Your task to perform on an android device: toggle location history Image 0: 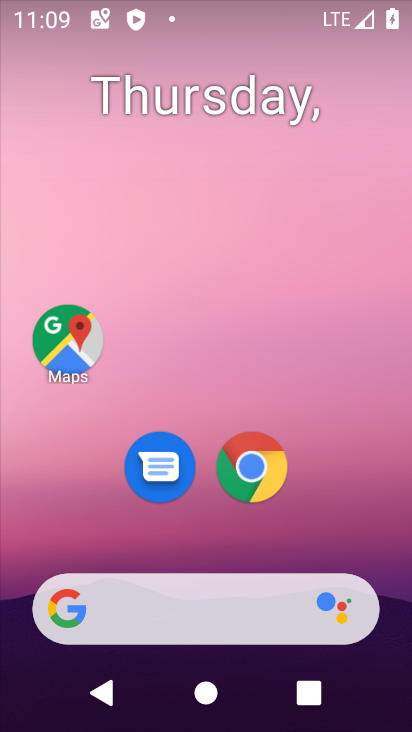
Step 0: drag from (215, 535) to (285, 33)
Your task to perform on an android device: toggle location history Image 1: 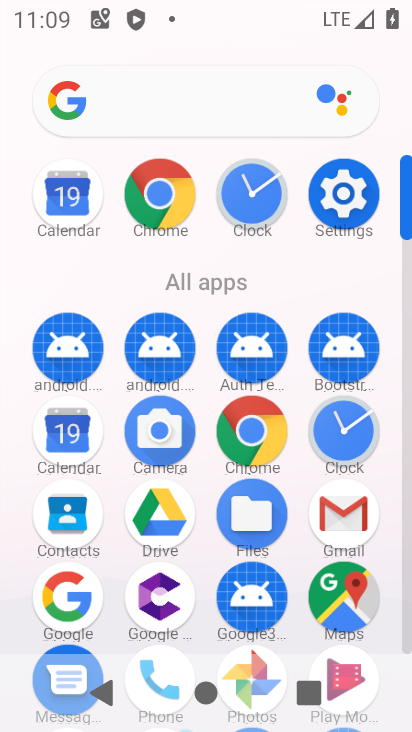
Step 1: click (332, 194)
Your task to perform on an android device: toggle location history Image 2: 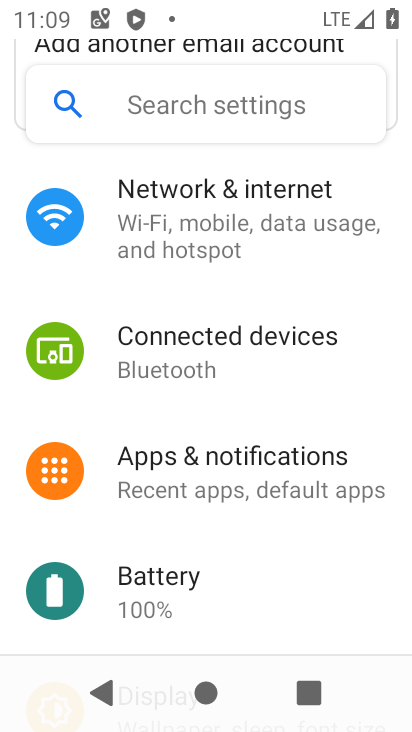
Step 2: drag from (193, 579) to (242, 217)
Your task to perform on an android device: toggle location history Image 3: 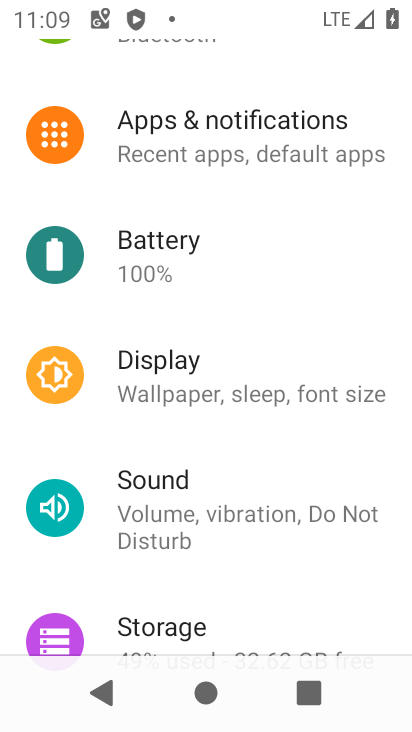
Step 3: drag from (214, 594) to (294, 86)
Your task to perform on an android device: toggle location history Image 4: 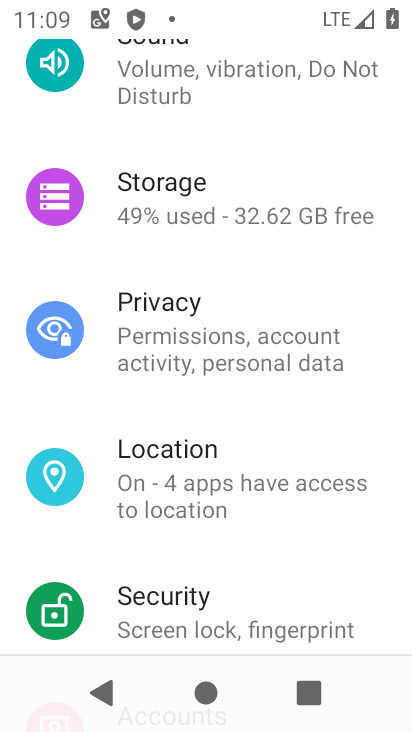
Step 4: click (201, 489)
Your task to perform on an android device: toggle location history Image 5: 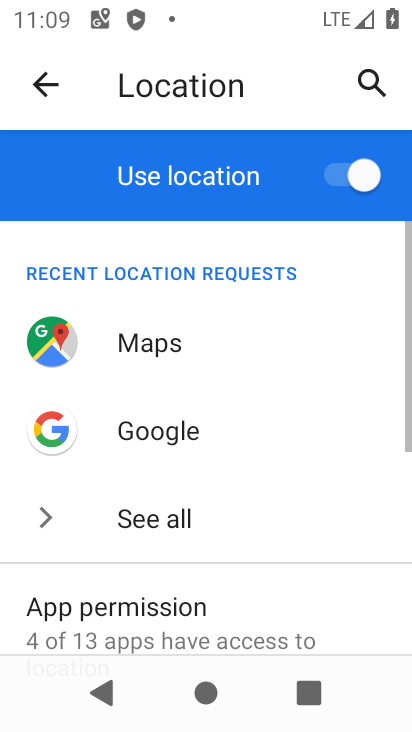
Step 5: drag from (182, 593) to (314, 78)
Your task to perform on an android device: toggle location history Image 6: 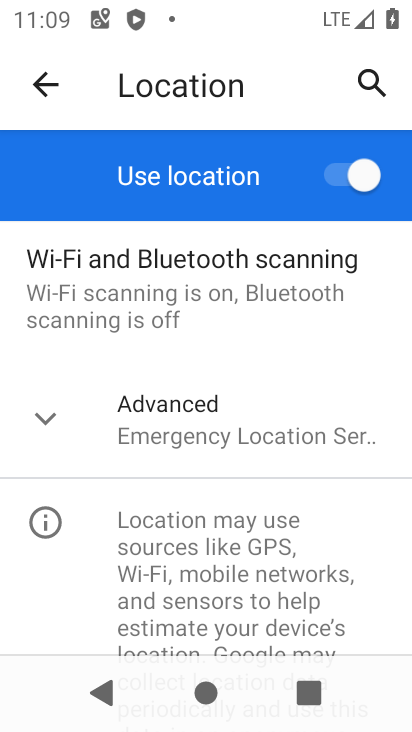
Step 6: click (206, 461)
Your task to perform on an android device: toggle location history Image 7: 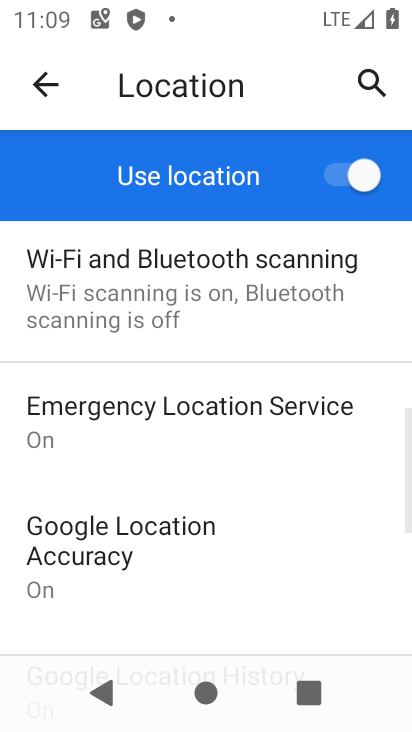
Step 7: drag from (189, 588) to (300, 158)
Your task to perform on an android device: toggle location history Image 8: 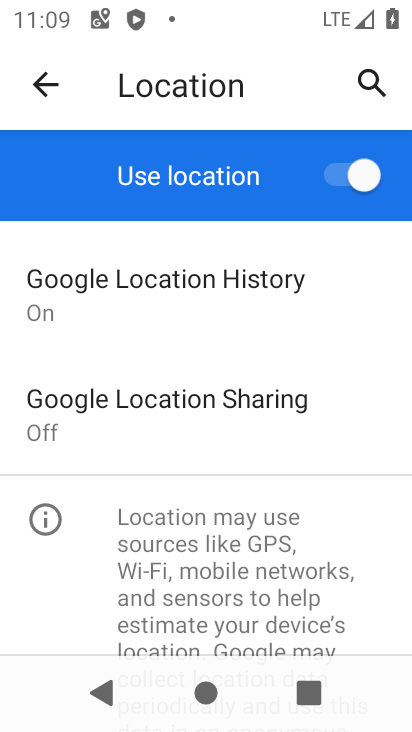
Step 8: click (163, 288)
Your task to perform on an android device: toggle location history Image 9: 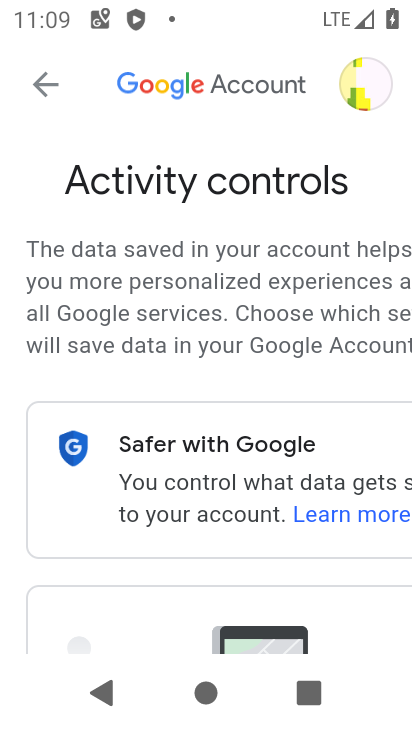
Step 9: drag from (195, 616) to (250, 127)
Your task to perform on an android device: toggle location history Image 10: 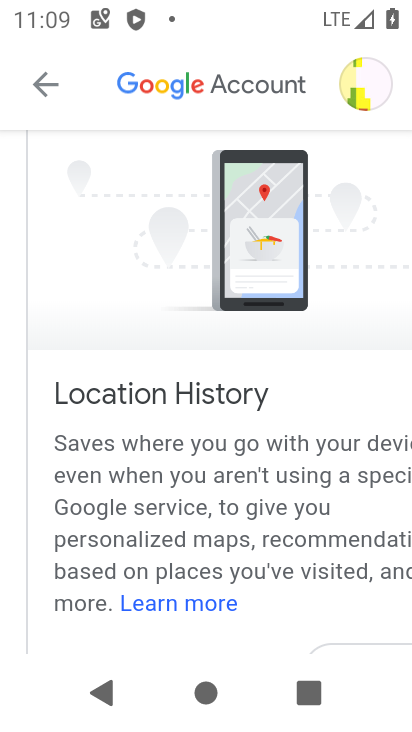
Step 10: drag from (227, 551) to (226, 100)
Your task to perform on an android device: toggle location history Image 11: 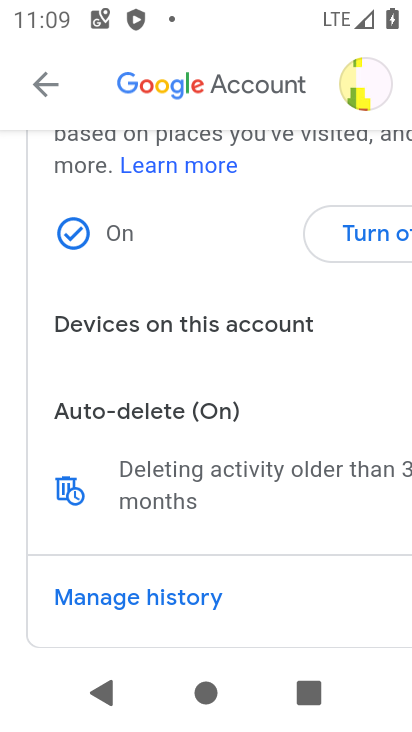
Step 11: click (338, 240)
Your task to perform on an android device: toggle location history Image 12: 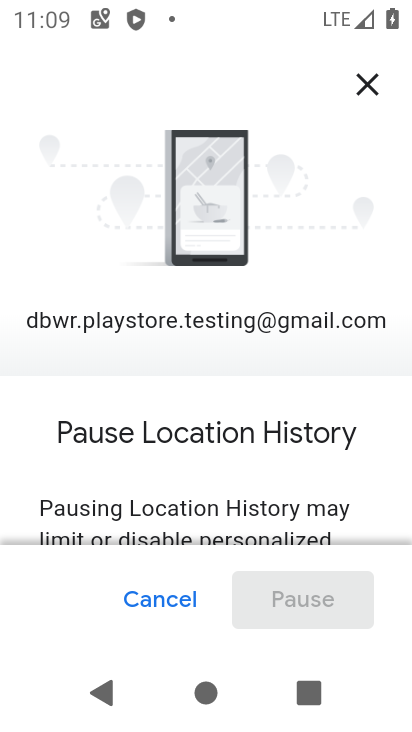
Step 12: drag from (230, 504) to (275, 53)
Your task to perform on an android device: toggle location history Image 13: 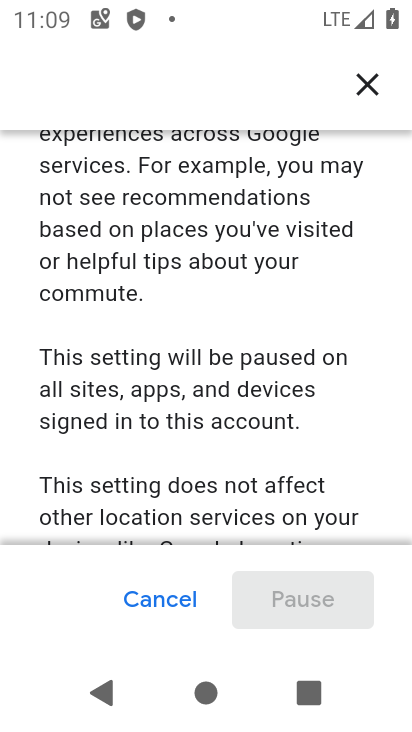
Step 13: drag from (211, 509) to (281, 74)
Your task to perform on an android device: toggle location history Image 14: 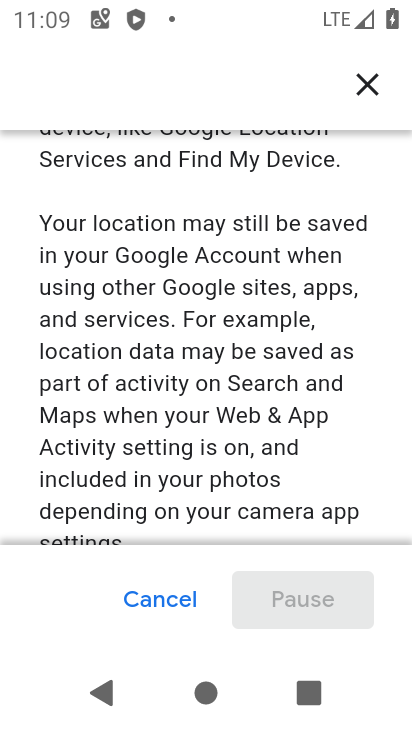
Step 14: drag from (201, 533) to (265, 74)
Your task to perform on an android device: toggle location history Image 15: 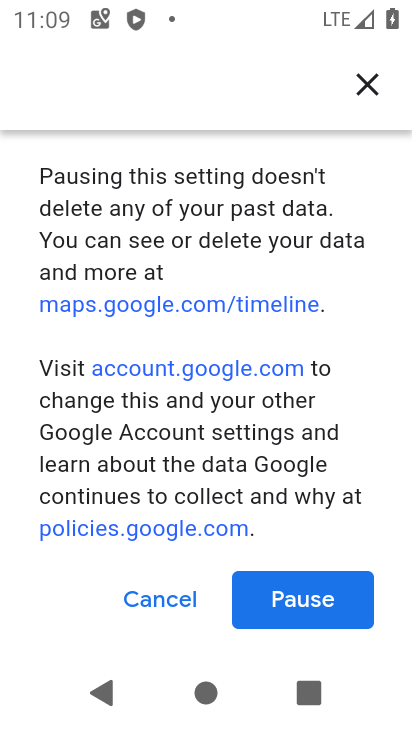
Step 15: drag from (203, 468) to (280, 47)
Your task to perform on an android device: toggle location history Image 16: 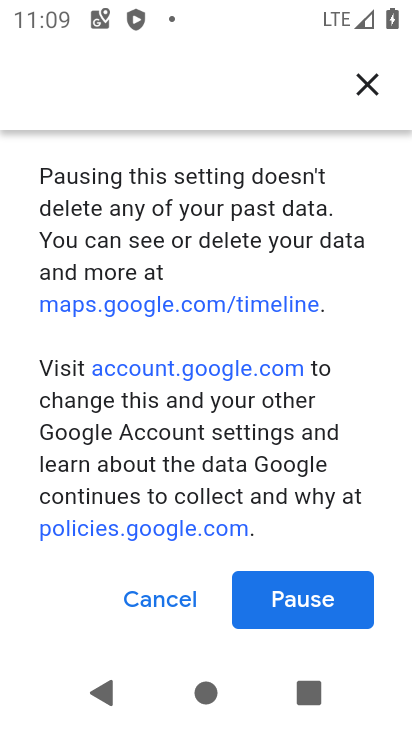
Step 16: click (300, 622)
Your task to perform on an android device: toggle location history Image 17: 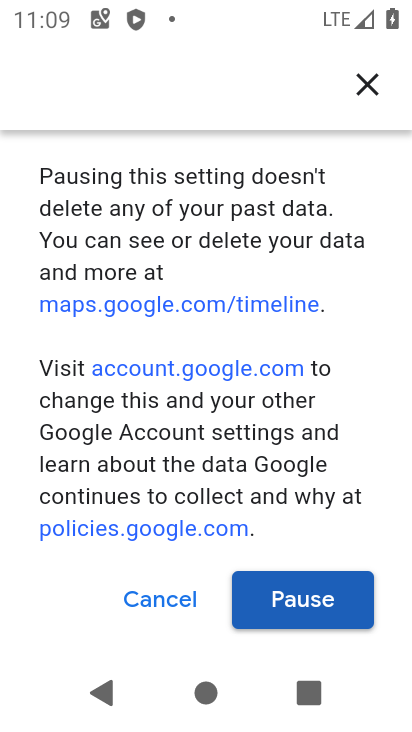
Step 17: click (295, 597)
Your task to perform on an android device: toggle location history Image 18: 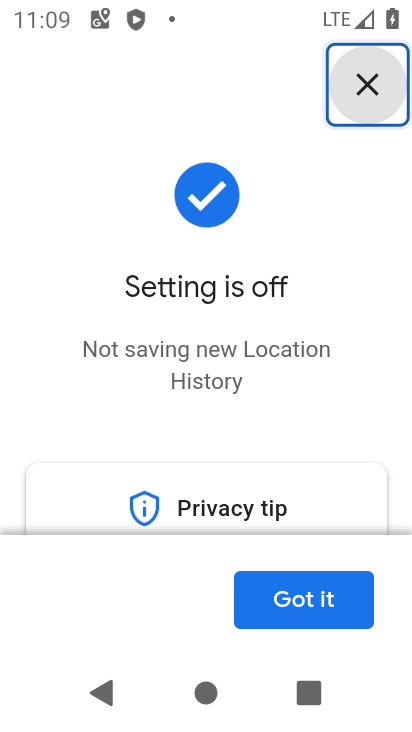
Step 18: task complete